Your task to perform on an android device: Go to location settings Image 0: 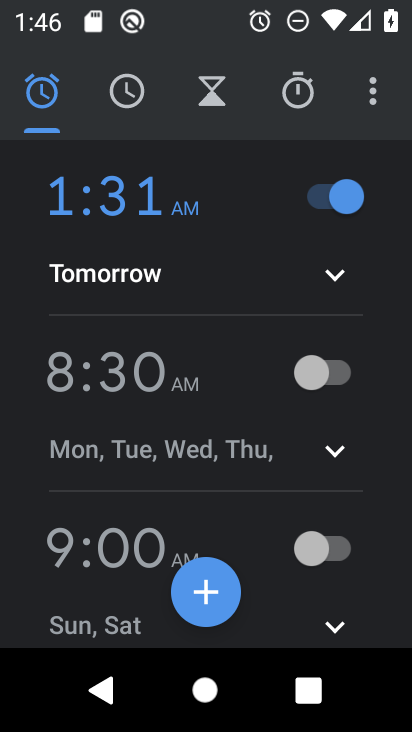
Step 0: press home button
Your task to perform on an android device: Go to location settings Image 1: 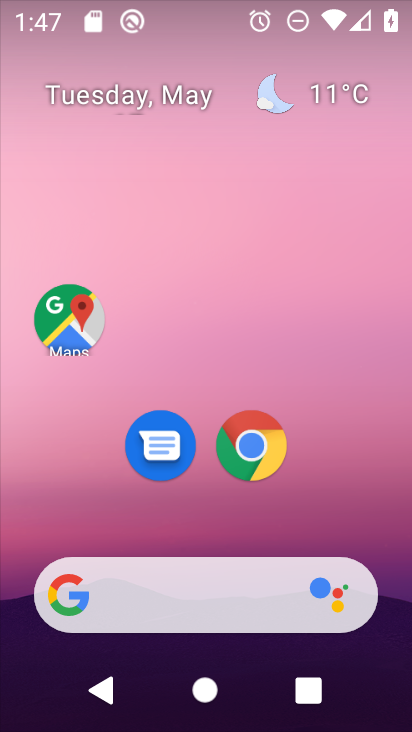
Step 1: drag from (356, 482) to (300, 101)
Your task to perform on an android device: Go to location settings Image 2: 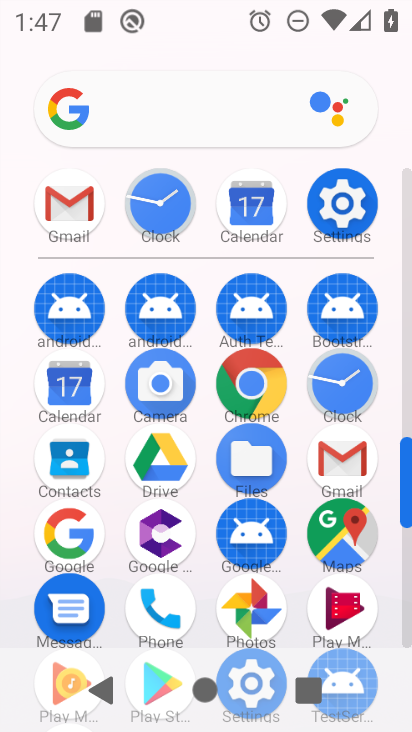
Step 2: click (325, 215)
Your task to perform on an android device: Go to location settings Image 3: 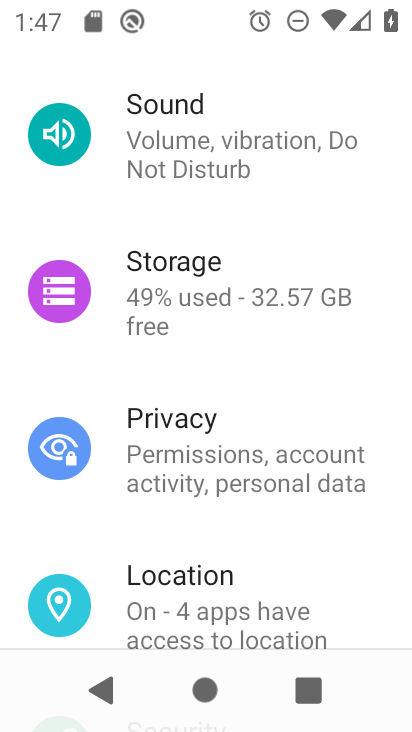
Step 3: click (156, 580)
Your task to perform on an android device: Go to location settings Image 4: 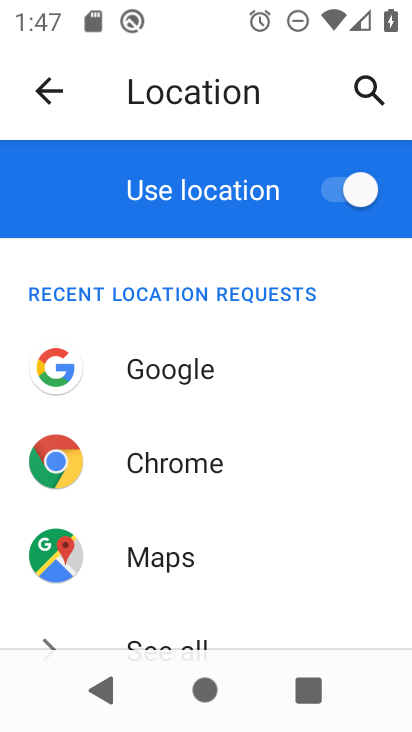
Step 4: task complete